Your task to perform on an android device: Open calendar and show me the first week of next month Image 0: 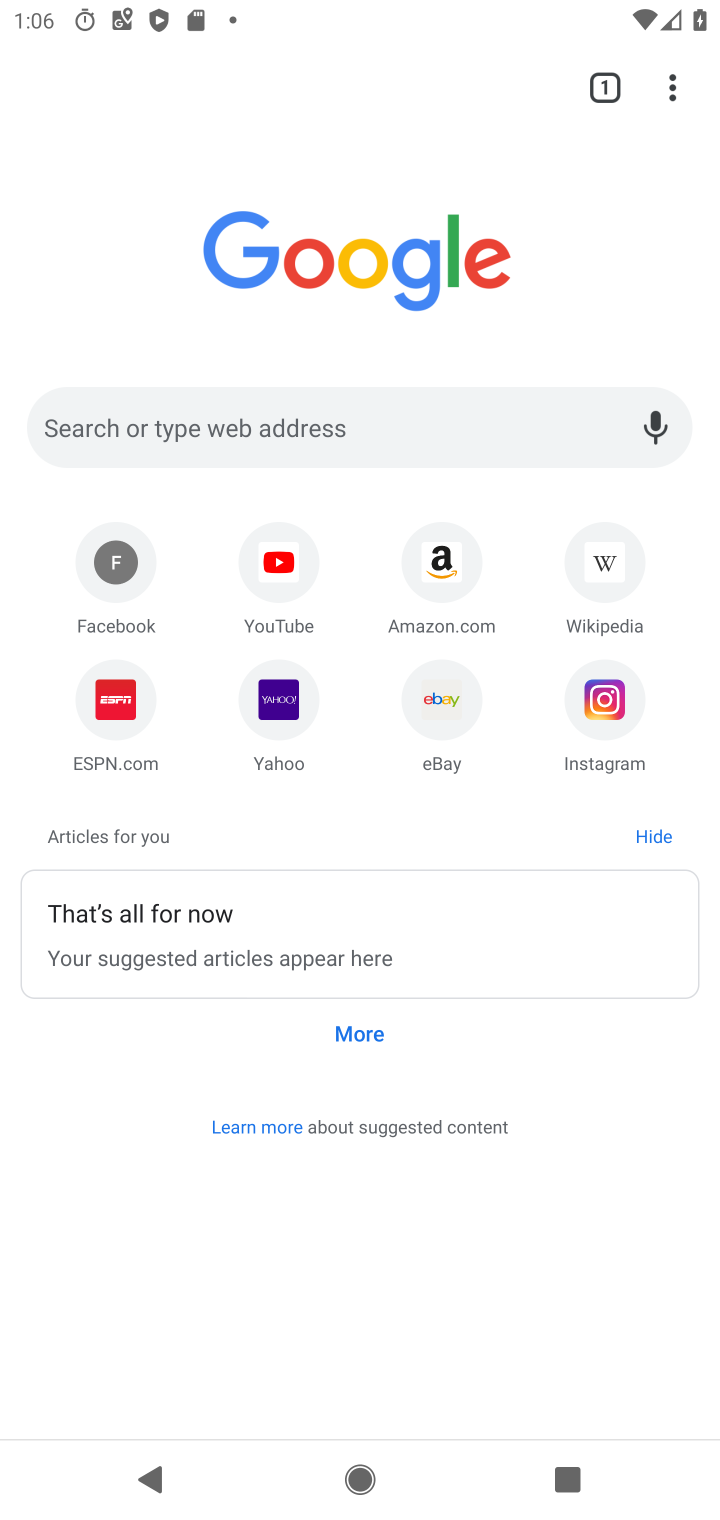
Step 0: press home button
Your task to perform on an android device: Open calendar and show me the first week of next month Image 1: 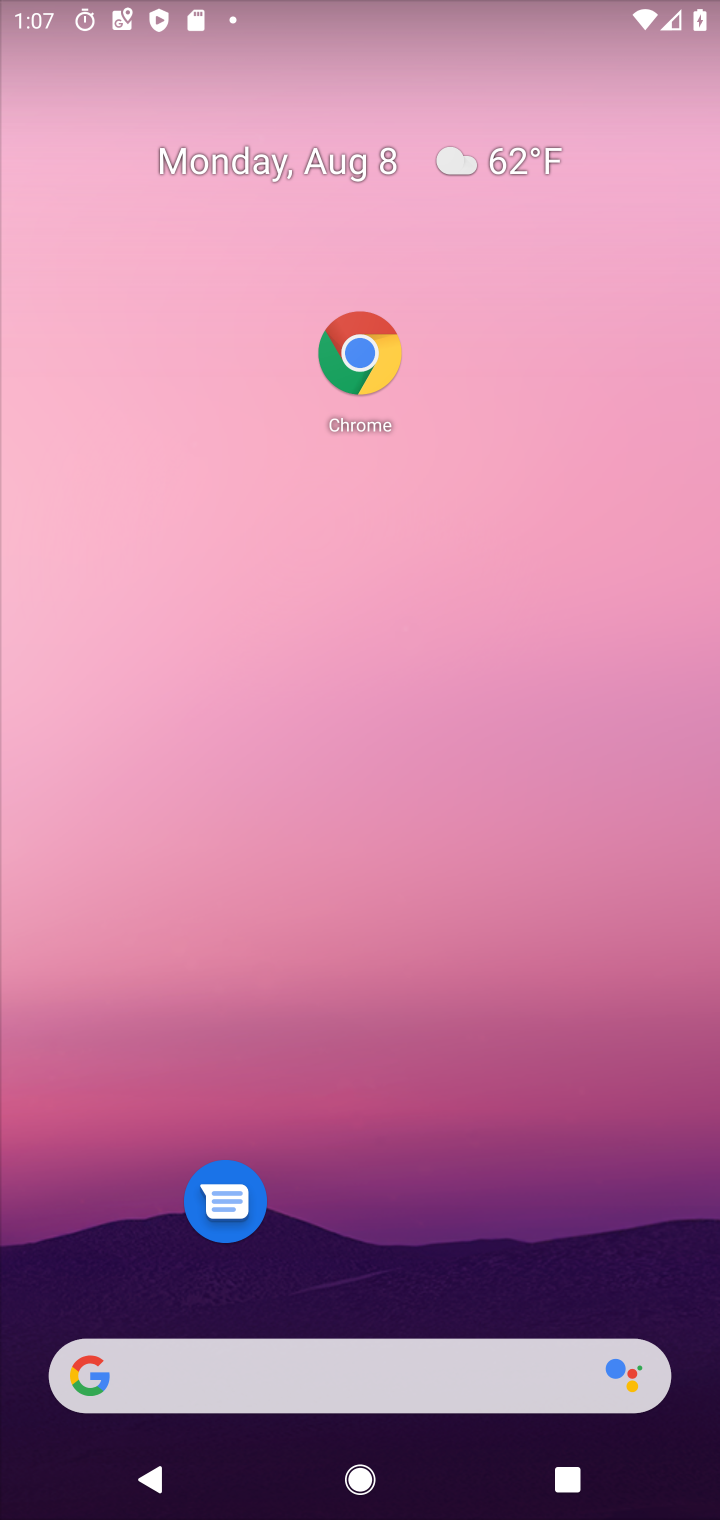
Step 1: drag from (348, 1233) to (206, 637)
Your task to perform on an android device: Open calendar and show me the first week of next month Image 2: 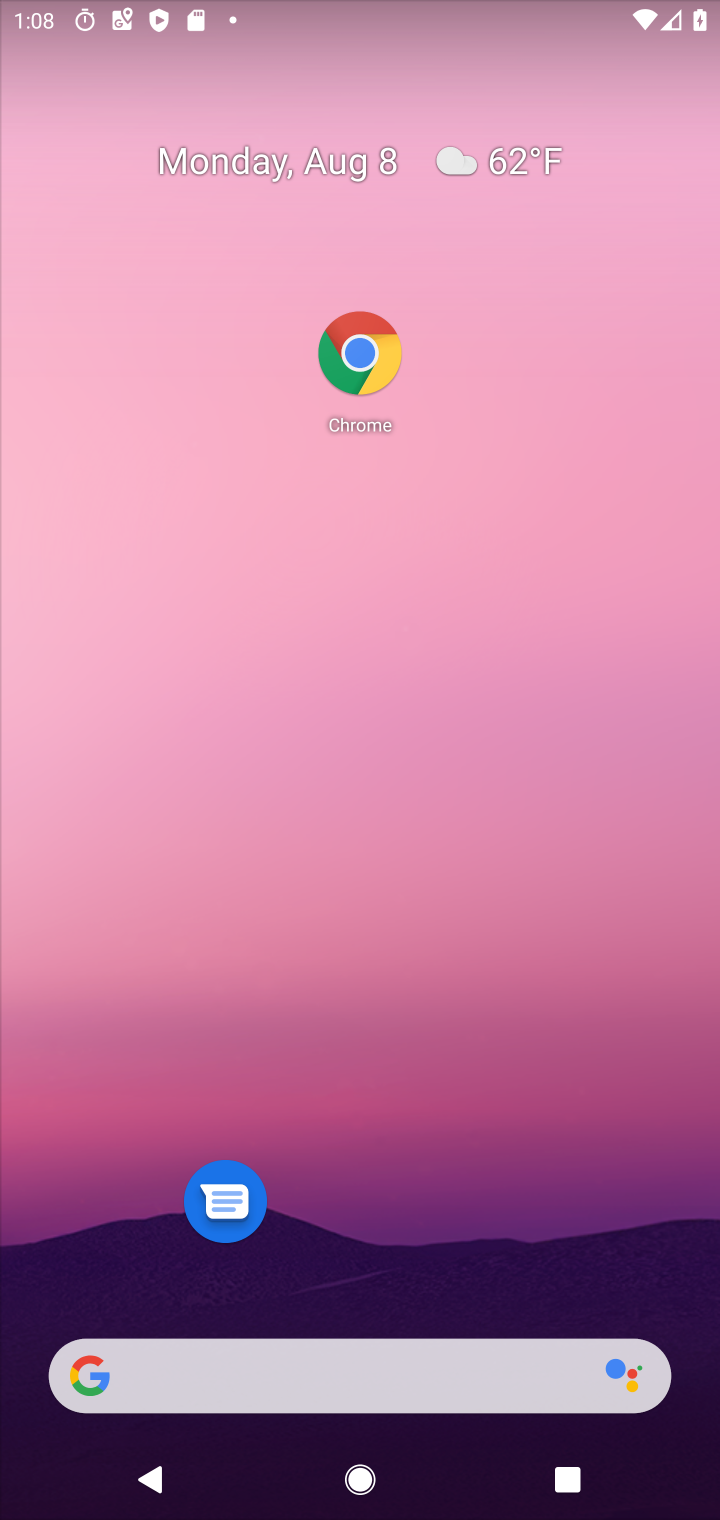
Step 2: drag from (314, 1332) to (117, 447)
Your task to perform on an android device: Open calendar and show me the first week of next month Image 3: 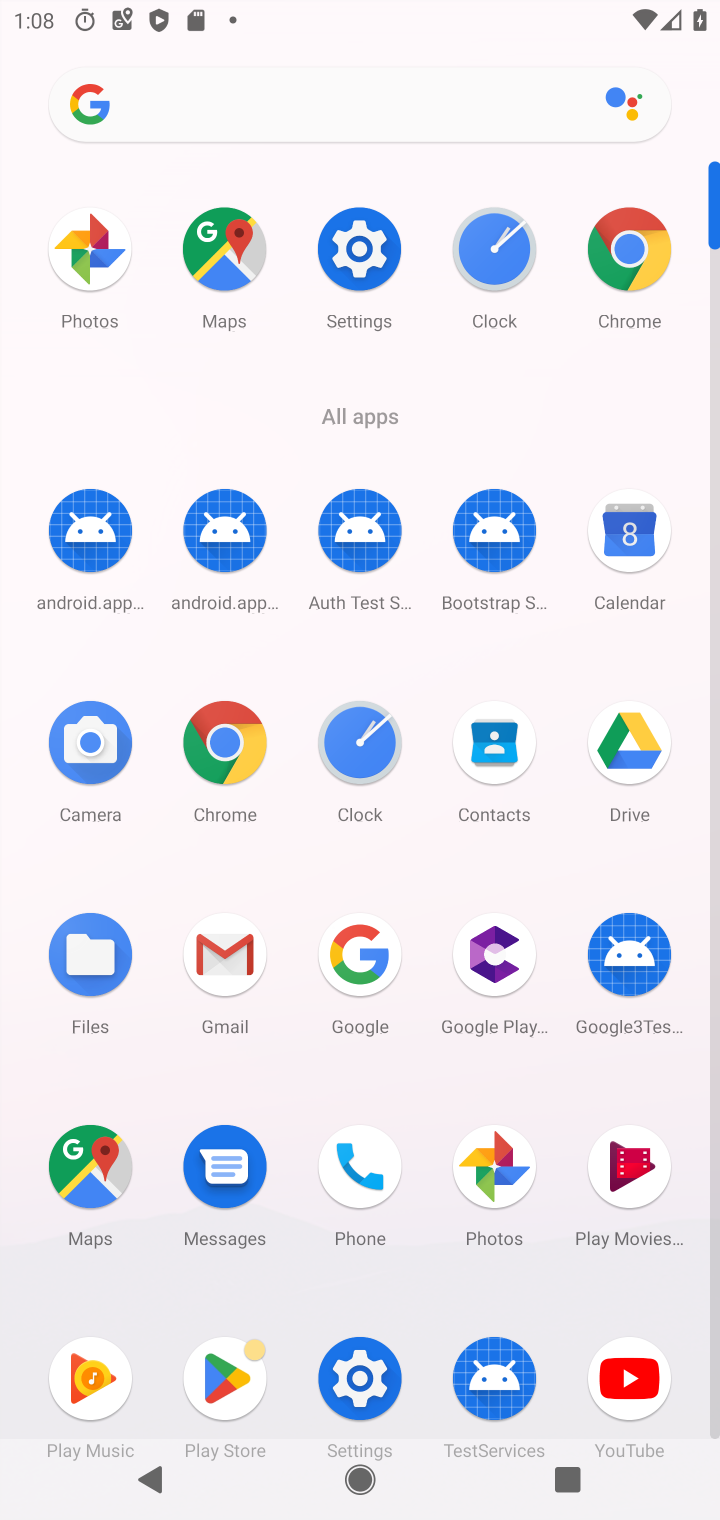
Step 3: click (665, 548)
Your task to perform on an android device: Open calendar and show me the first week of next month Image 4: 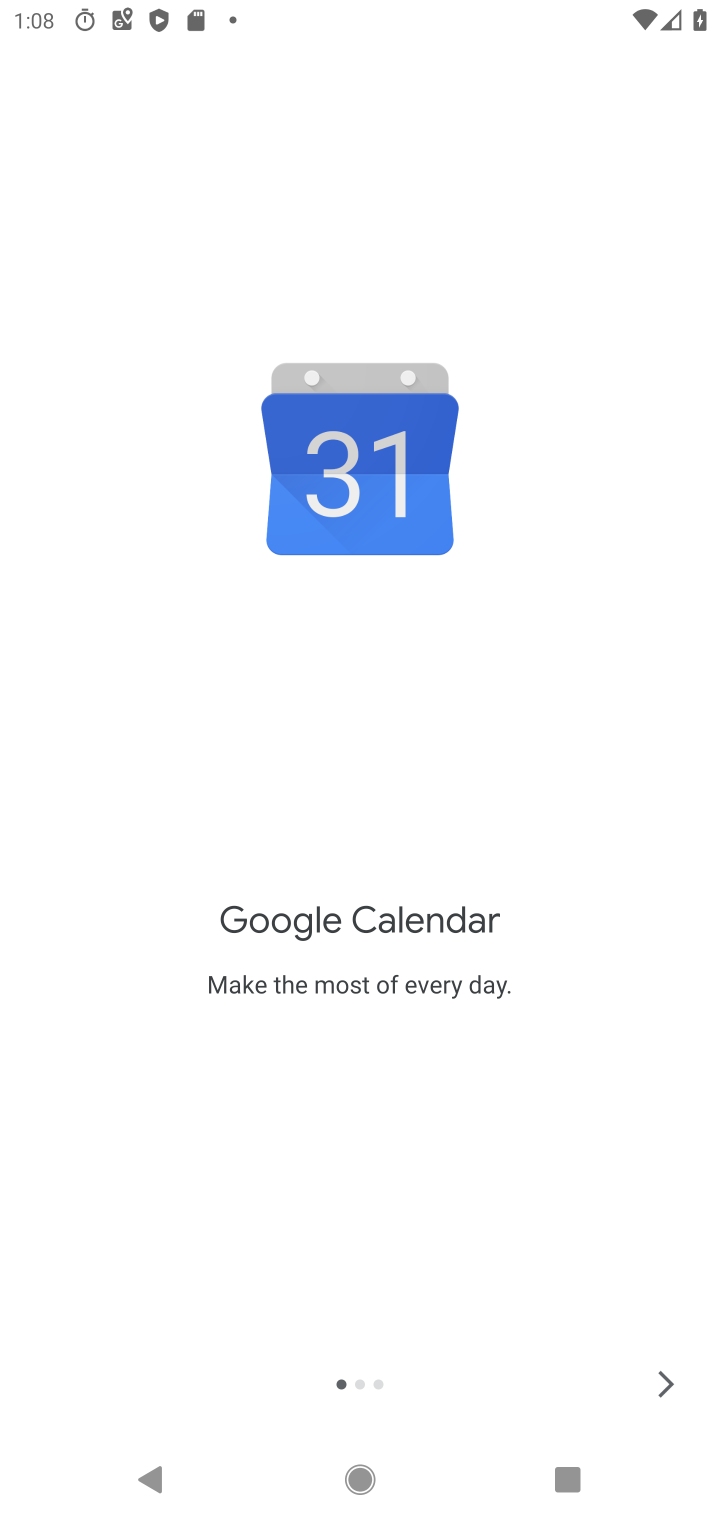
Step 4: click (627, 1352)
Your task to perform on an android device: Open calendar and show me the first week of next month Image 5: 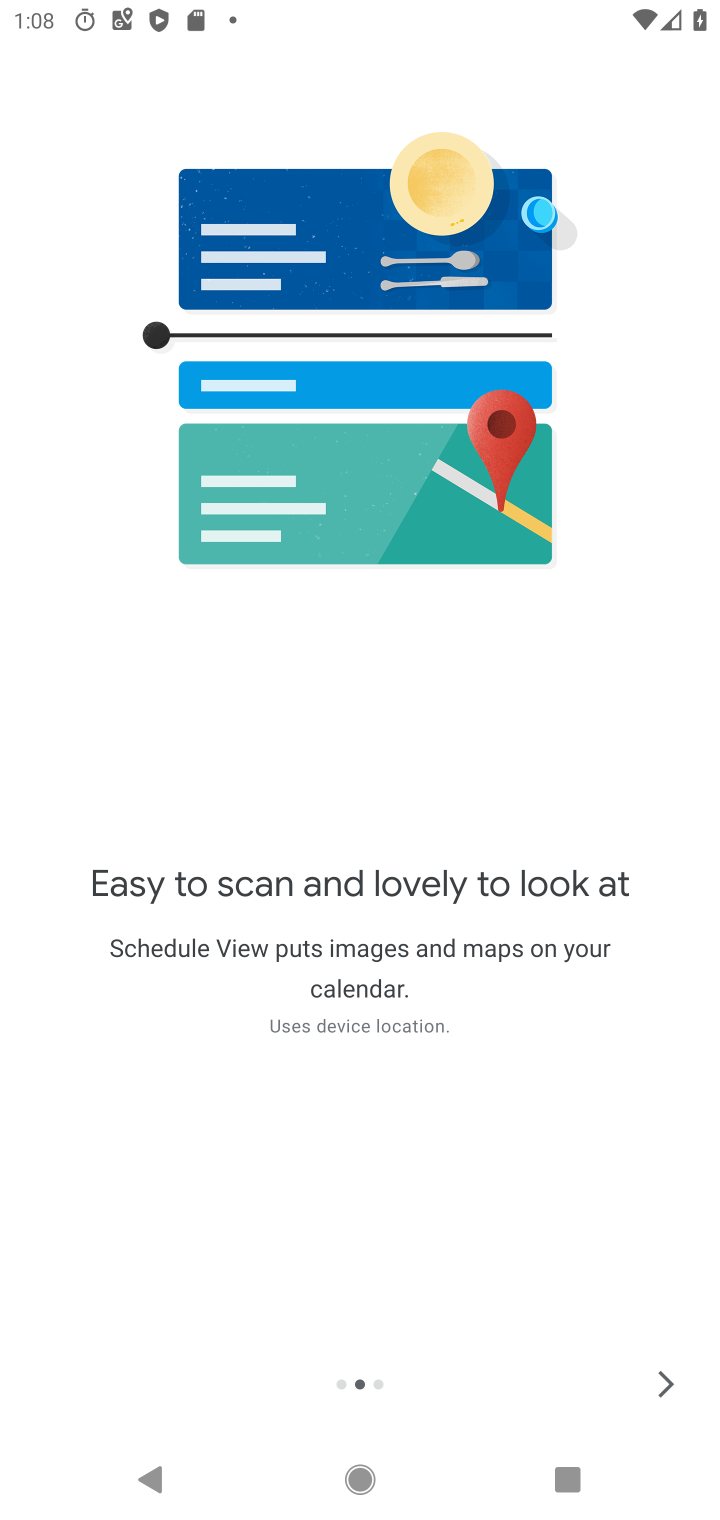
Step 5: click (646, 1393)
Your task to perform on an android device: Open calendar and show me the first week of next month Image 6: 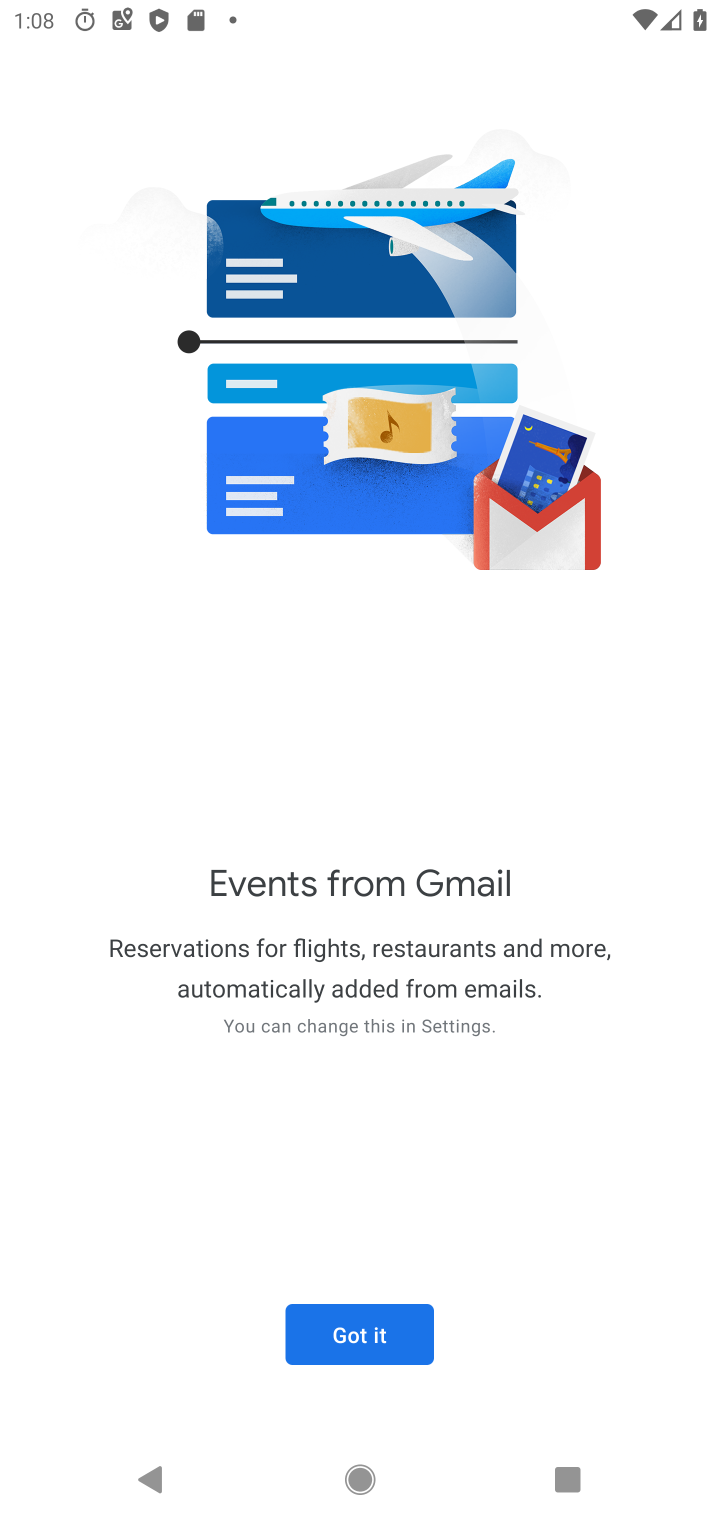
Step 6: drag from (247, 1275) to (309, 1336)
Your task to perform on an android device: Open calendar and show me the first week of next month Image 7: 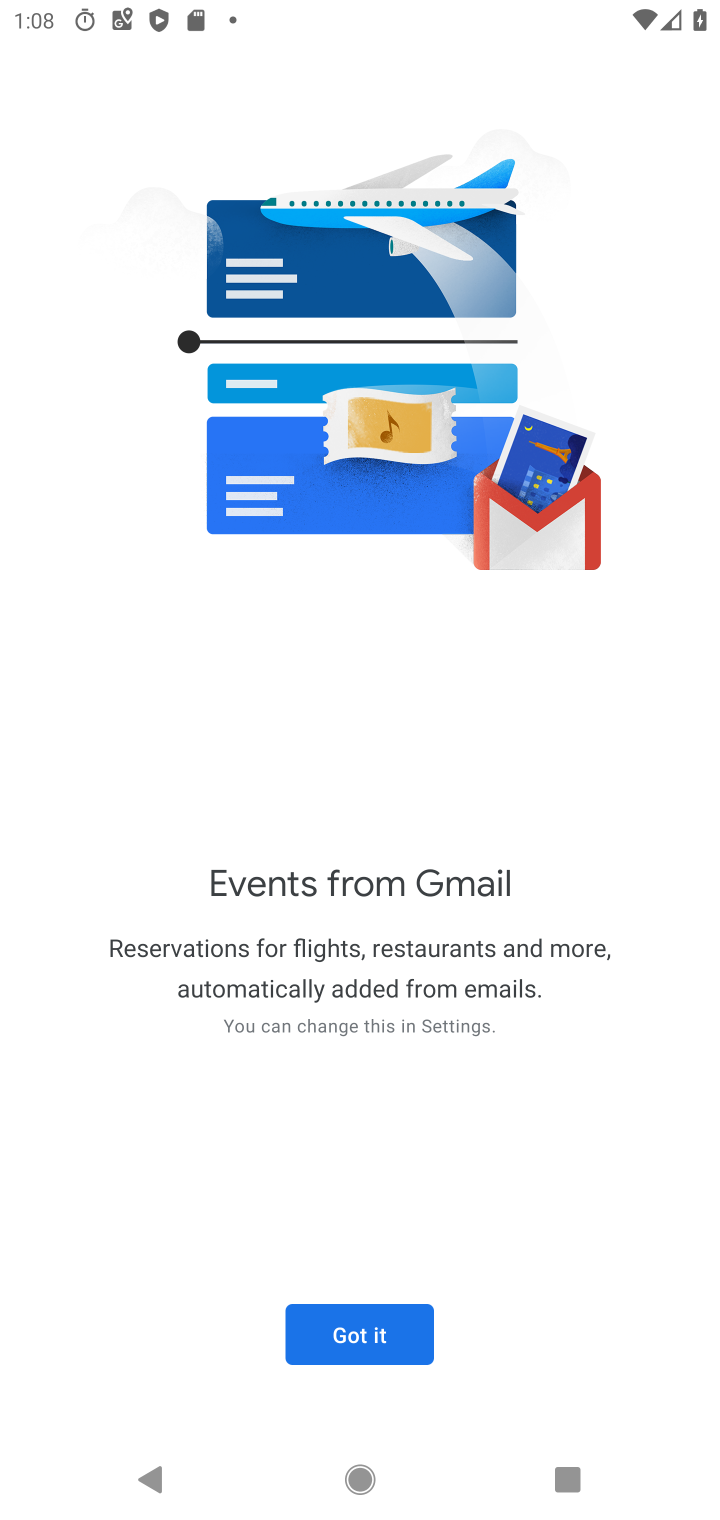
Step 7: click (388, 1338)
Your task to perform on an android device: Open calendar and show me the first week of next month Image 8: 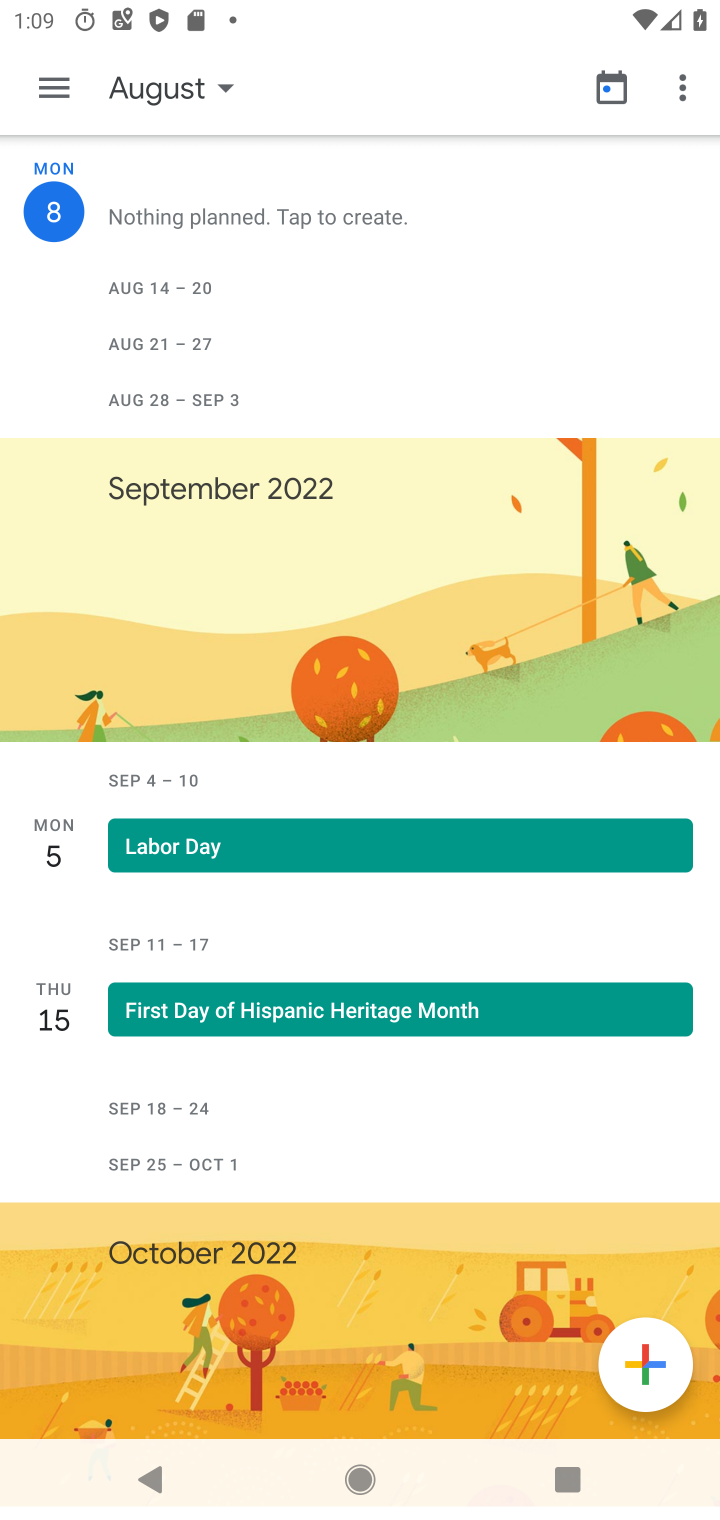
Step 8: click (64, 99)
Your task to perform on an android device: Open calendar and show me the first week of next month Image 9: 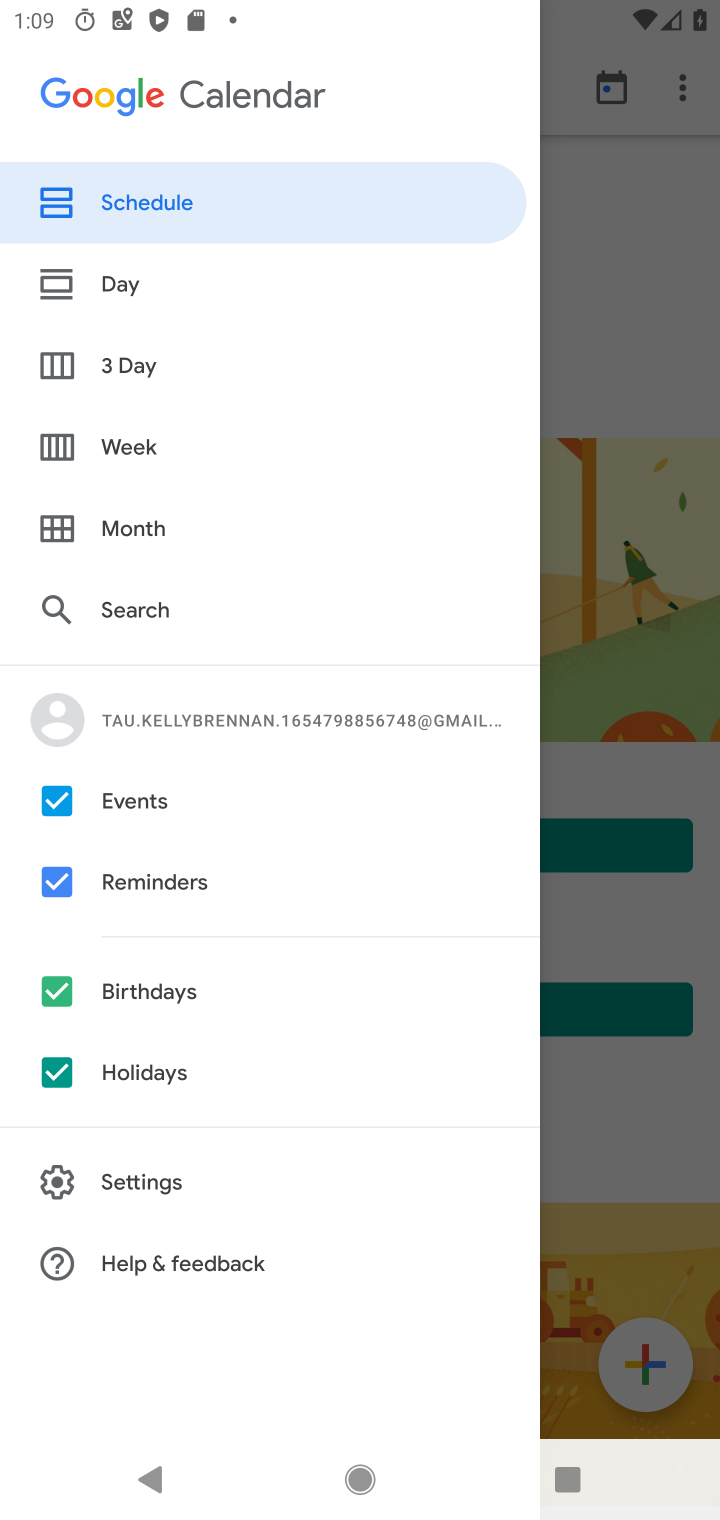
Step 9: click (134, 546)
Your task to perform on an android device: Open calendar and show me the first week of next month Image 10: 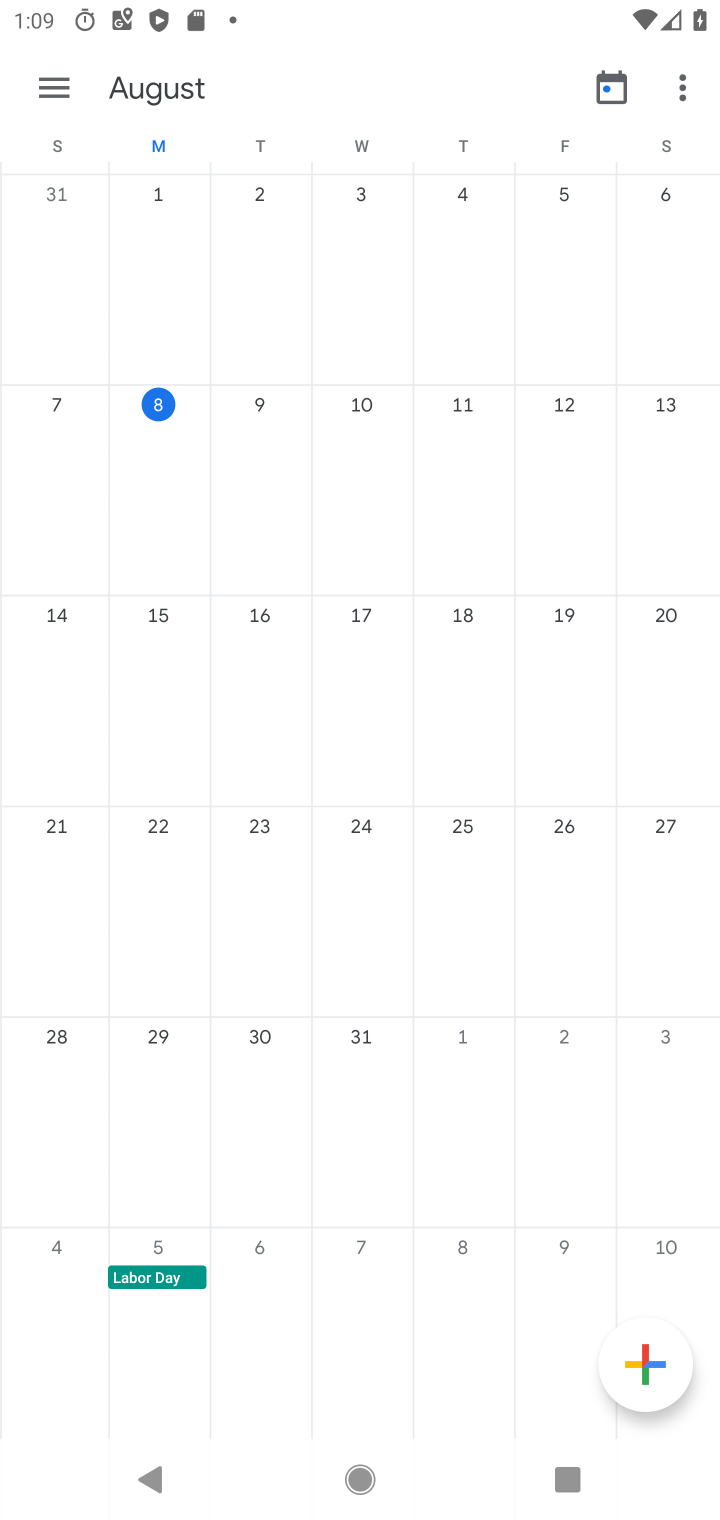
Step 10: drag from (642, 830) to (6, 510)
Your task to perform on an android device: Open calendar and show me the first week of next month Image 11: 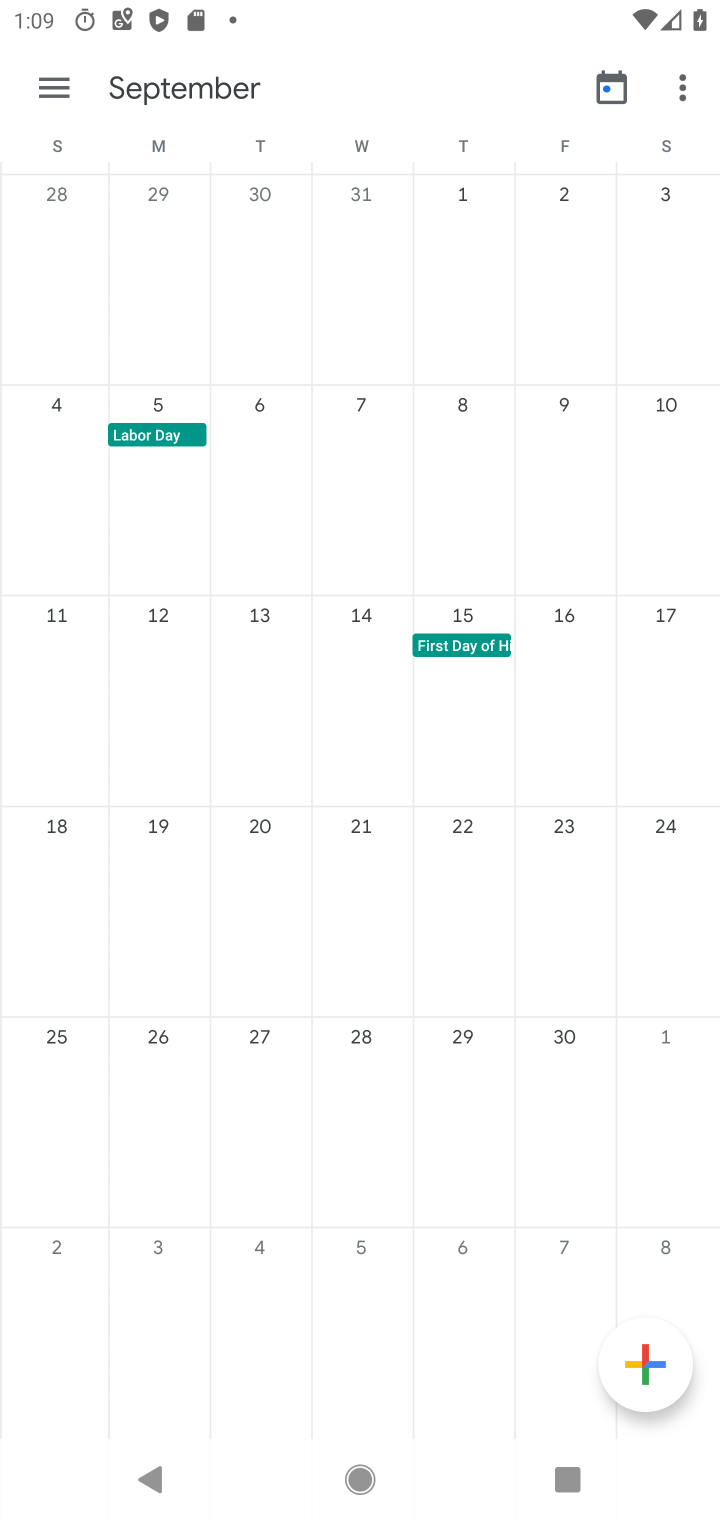
Step 11: click (125, 438)
Your task to perform on an android device: Open calendar and show me the first week of next month Image 12: 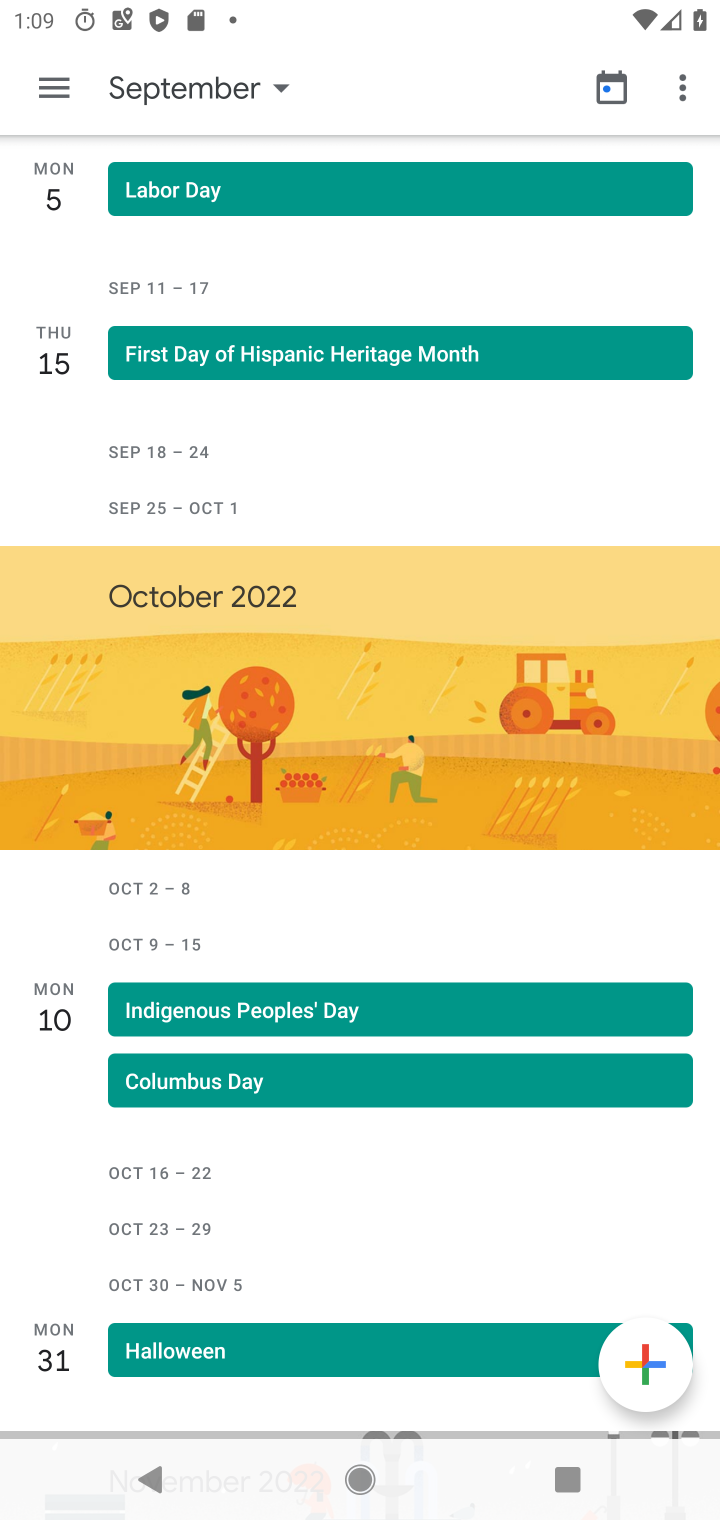
Step 12: task complete